Your task to perform on an android device: Go to Yahoo.com Image 0: 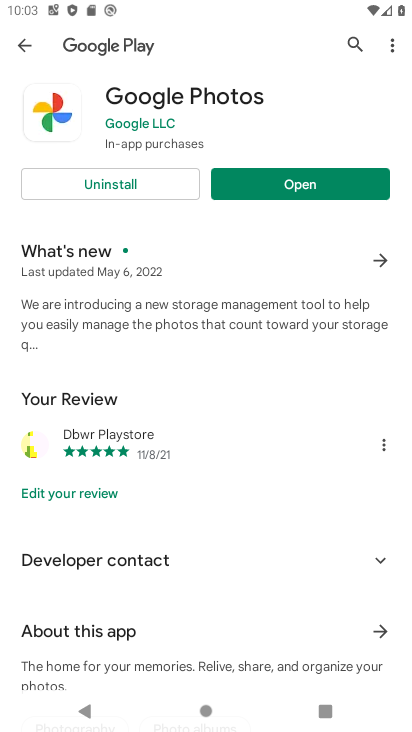
Step 0: press home button
Your task to perform on an android device: Go to Yahoo.com Image 1: 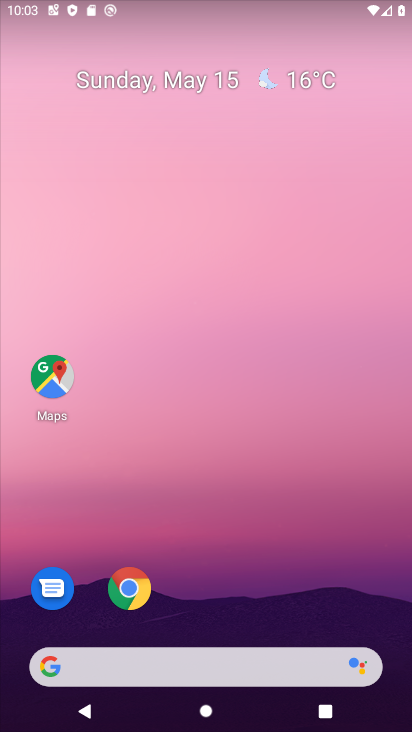
Step 1: click (163, 652)
Your task to perform on an android device: Go to Yahoo.com Image 2: 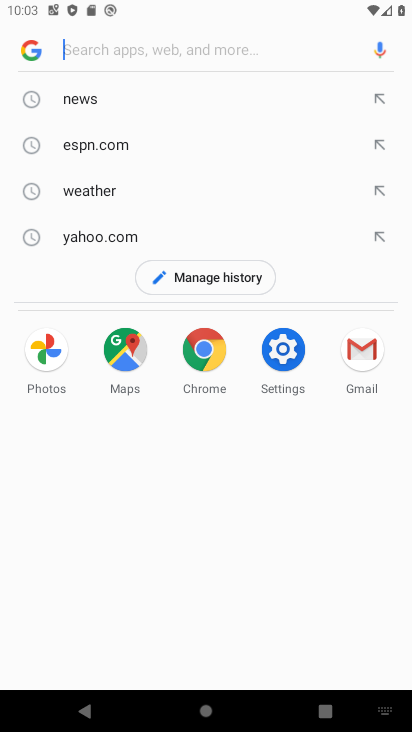
Step 2: click (80, 243)
Your task to perform on an android device: Go to Yahoo.com Image 3: 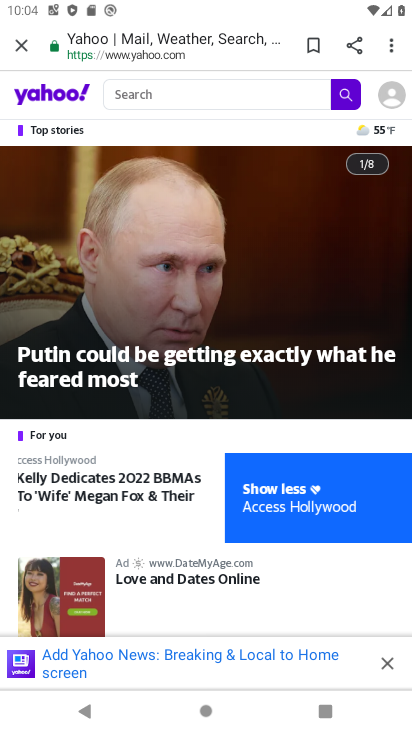
Step 3: task complete